Your task to perform on an android device: Open Android settings Image 0: 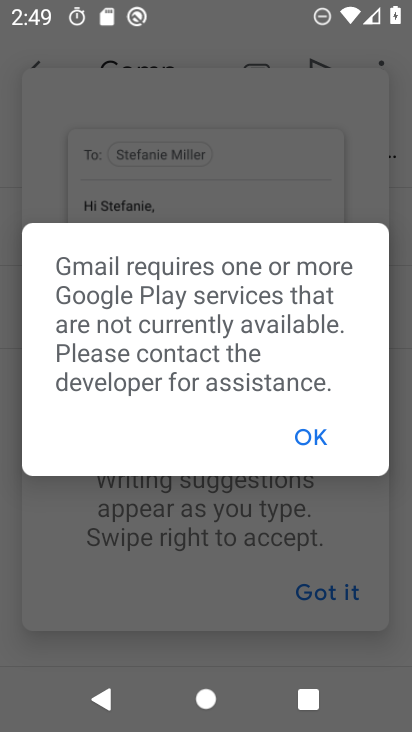
Step 0: press home button
Your task to perform on an android device: Open Android settings Image 1: 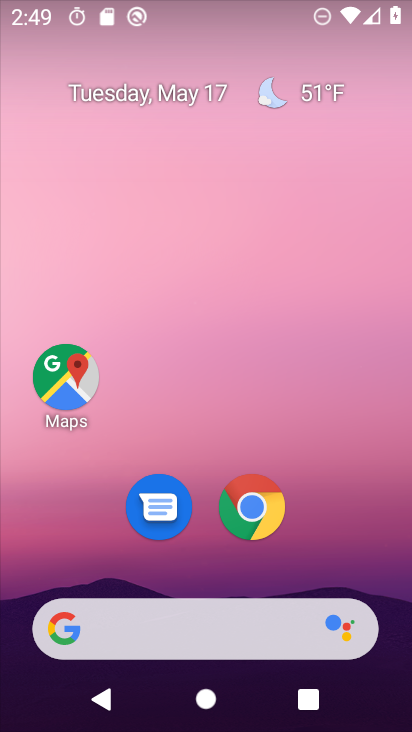
Step 1: drag from (204, 550) to (243, 104)
Your task to perform on an android device: Open Android settings Image 2: 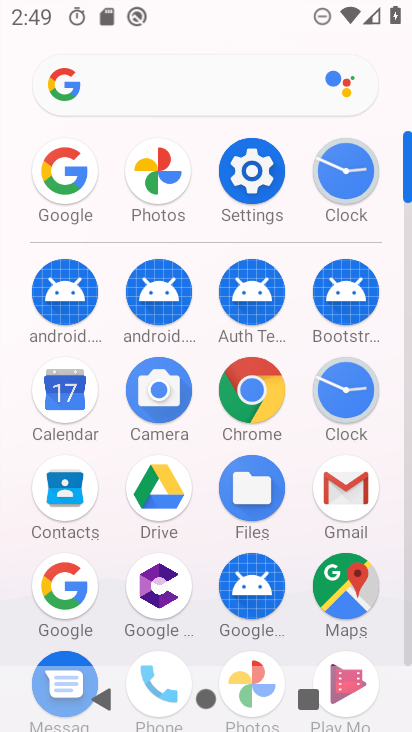
Step 2: click (253, 179)
Your task to perform on an android device: Open Android settings Image 3: 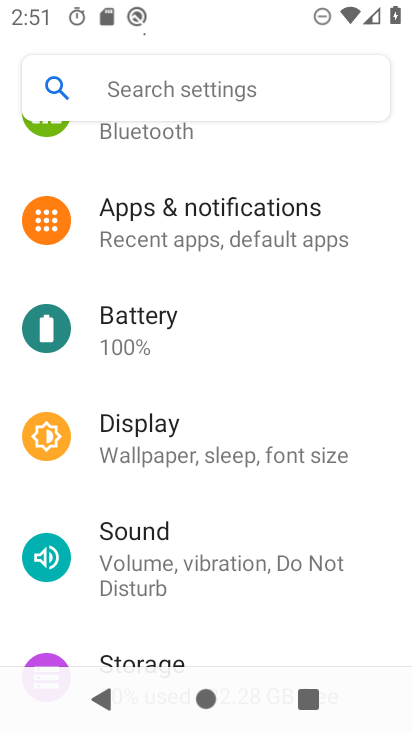
Step 3: task complete